Your task to perform on an android device: move a message to another label in the gmail app Image 0: 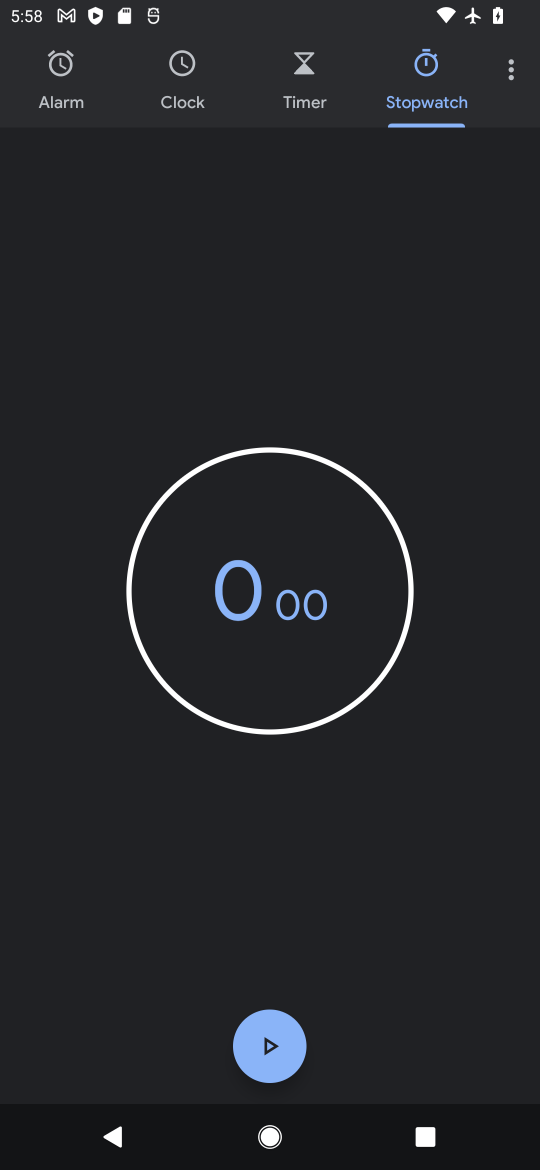
Step 0: press home button
Your task to perform on an android device: move a message to another label in the gmail app Image 1: 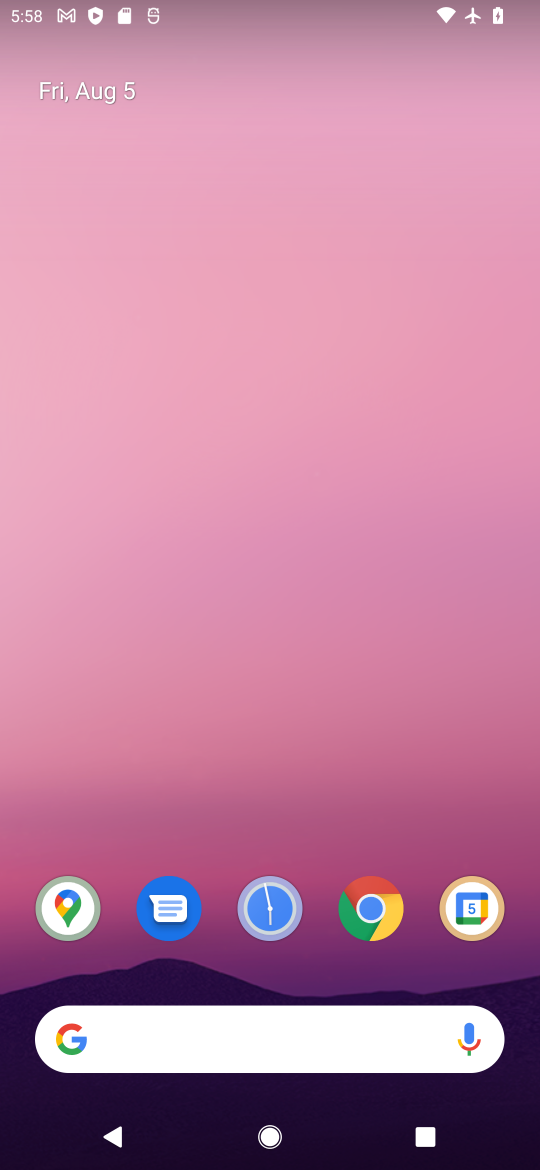
Step 1: drag from (200, 974) to (227, 229)
Your task to perform on an android device: move a message to another label in the gmail app Image 2: 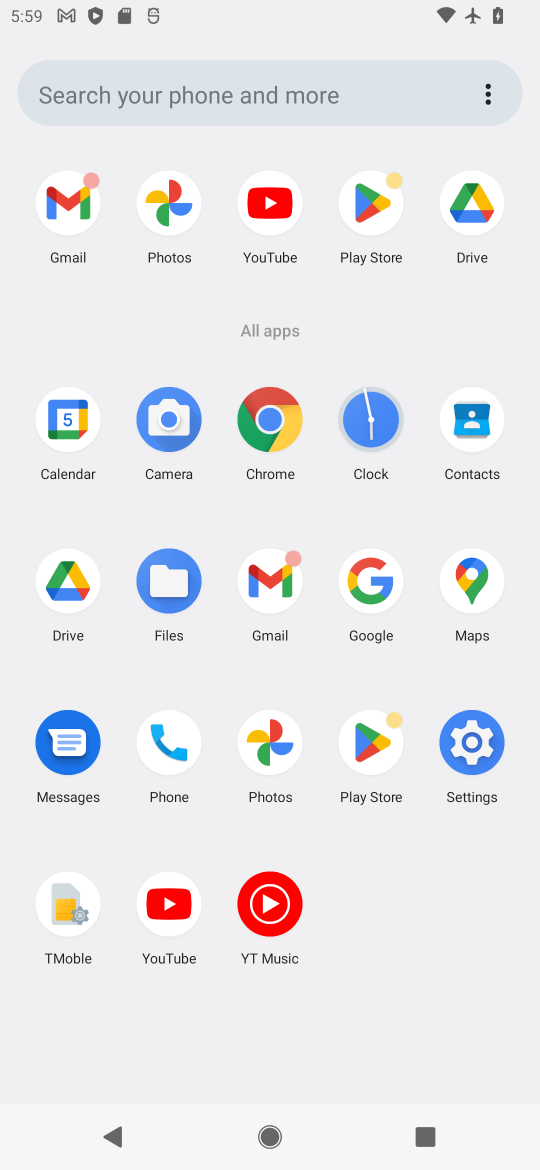
Step 2: click (77, 201)
Your task to perform on an android device: move a message to another label in the gmail app Image 3: 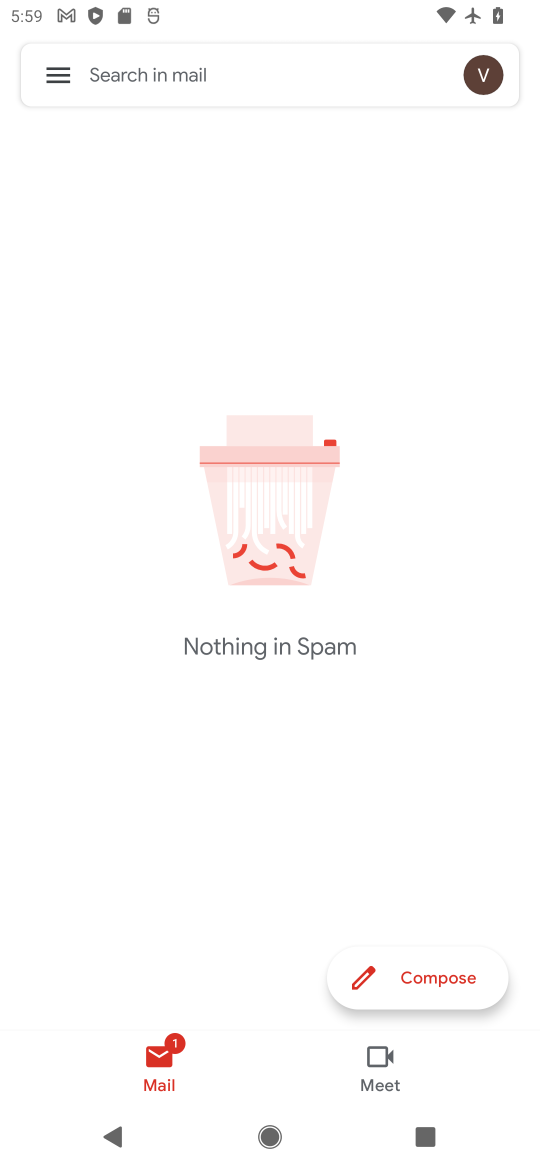
Step 3: click (48, 81)
Your task to perform on an android device: move a message to another label in the gmail app Image 4: 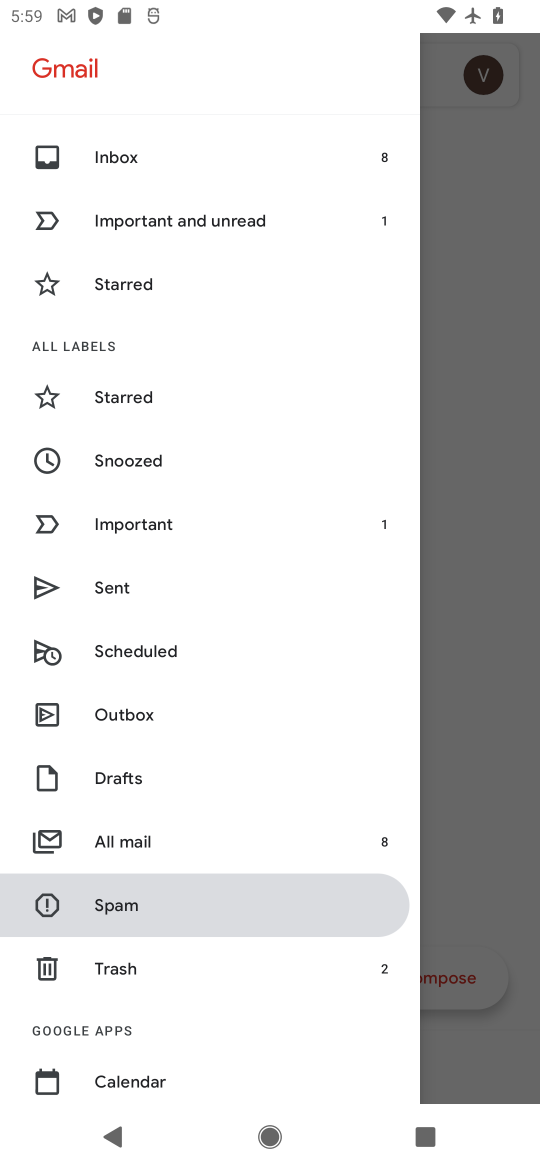
Step 4: click (114, 845)
Your task to perform on an android device: move a message to another label in the gmail app Image 5: 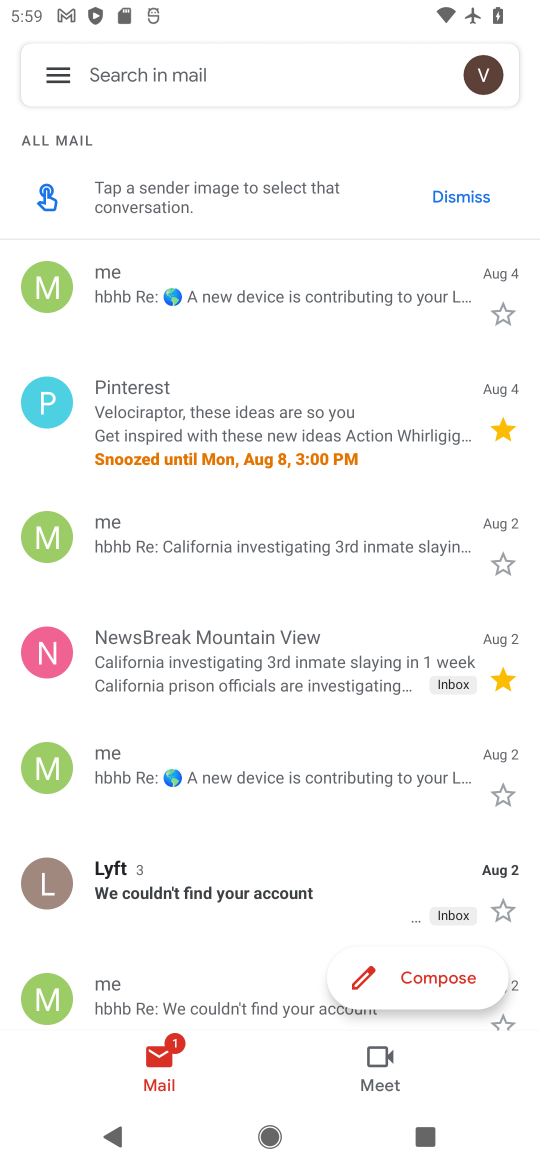
Step 5: click (203, 426)
Your task to perform on an android device: move a message to another label in the gmail app Image 6: 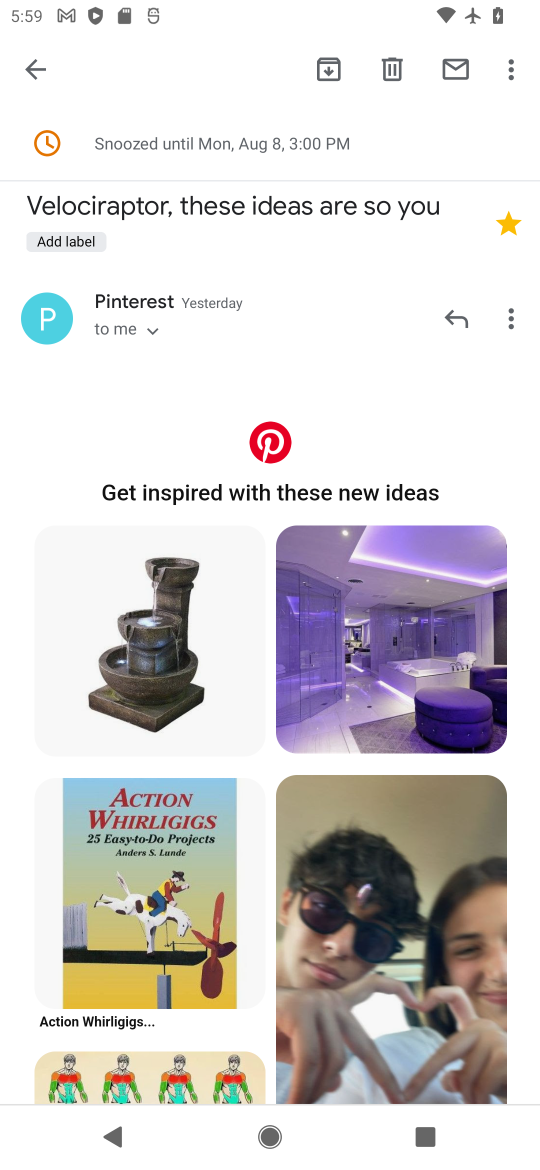
Step 6: click (516, 71)
Your task to perform on an android device: move a message to another label in the gmail app Image 7: 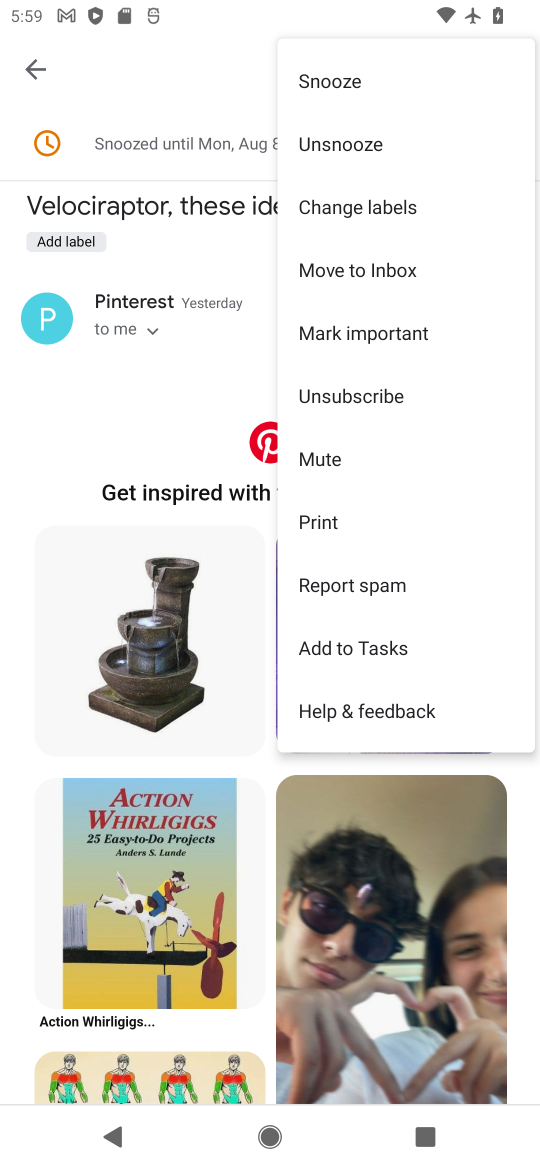
Step 7: click (365, 203)
Your task to perform on an android device: move a message to another label in the gmail app Image 8: 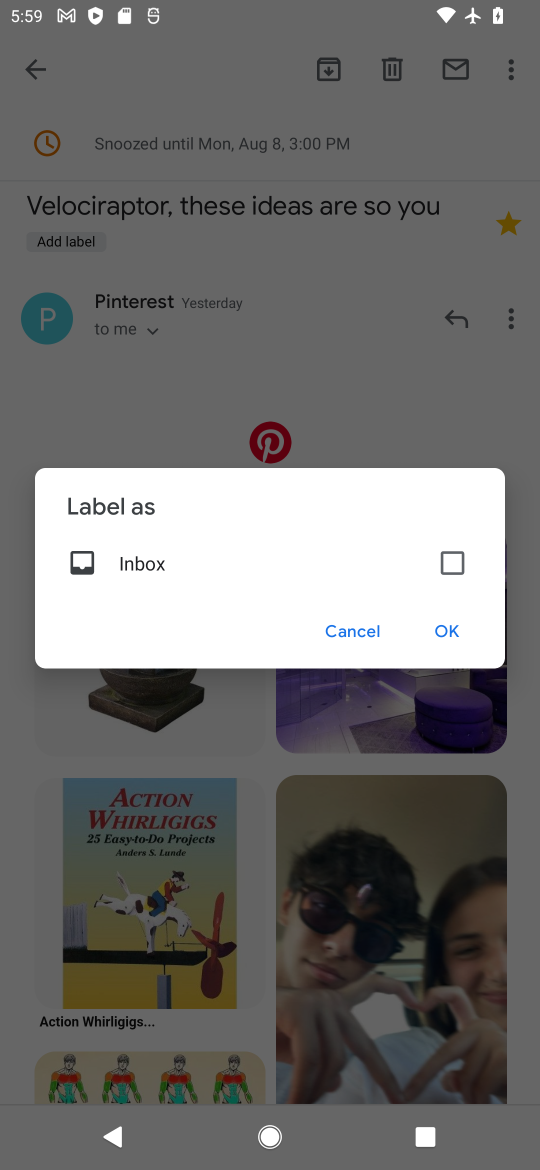
Step 8: click (459, 572)
Your task to perform on an android device: move a message to another label in the gmail app Image 9: 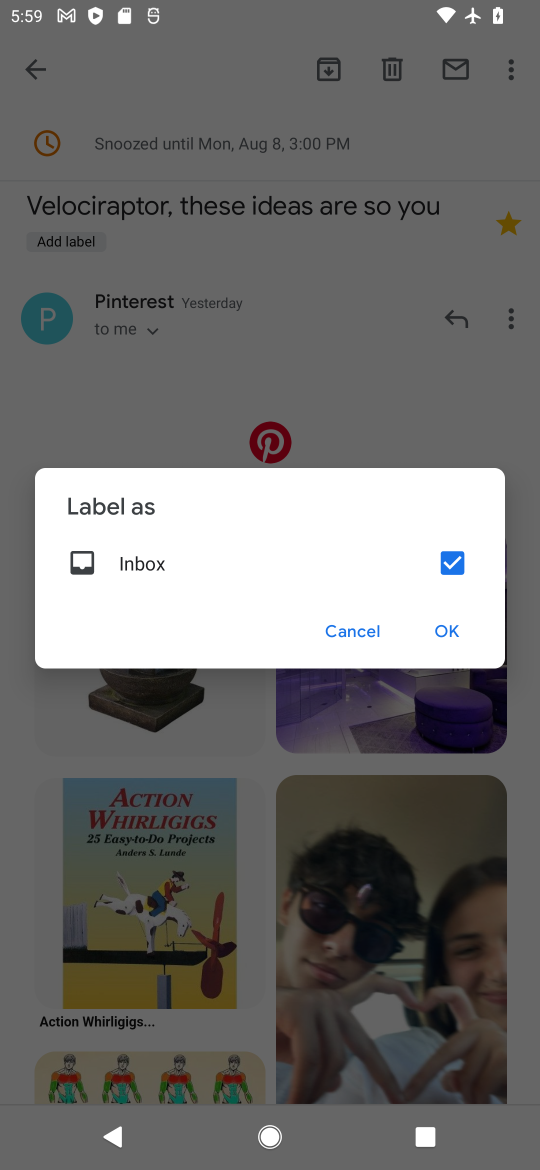
Step 9: click (438, 637)
Your task to perform on an android device: move a message to another label in the gmail app Image 10: 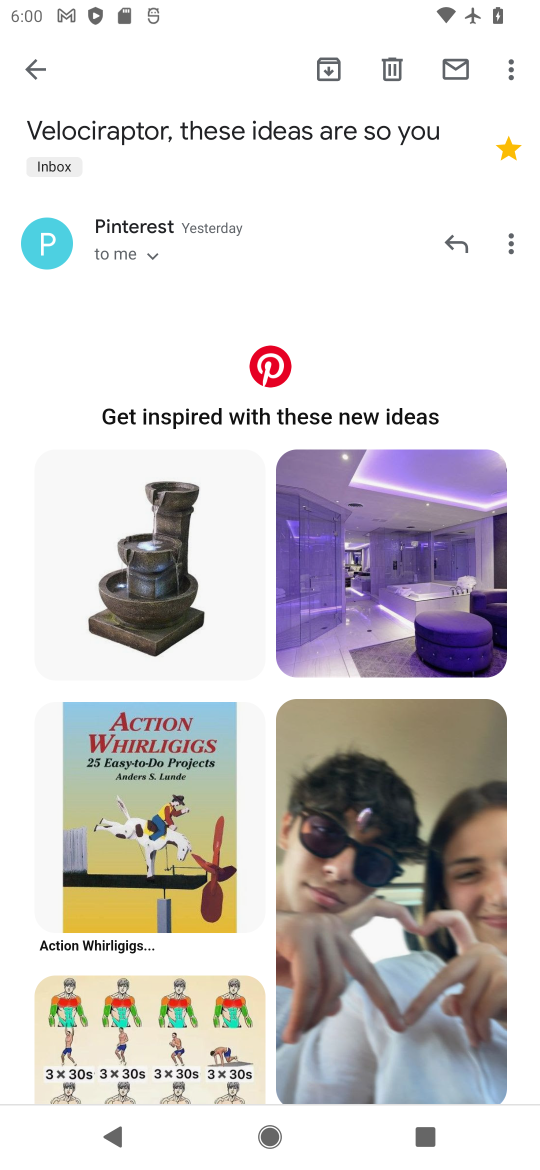
Step 10: task complete